Your task to perform on an android device: Go to privacy settings Image 0: 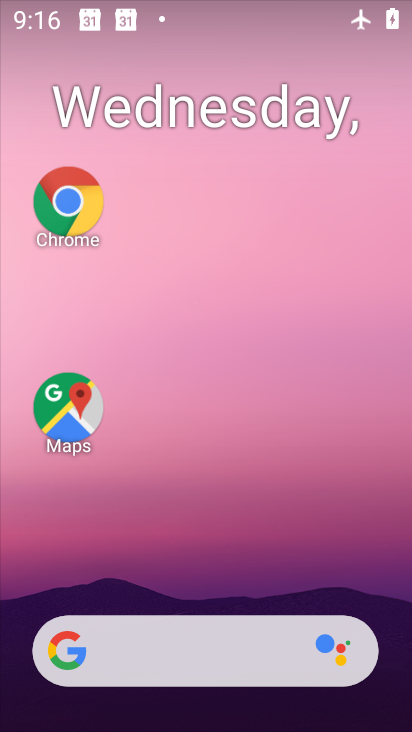
Step 0: drag from (206, 596) to (179, 262)
Your task to perform on an android device: Go to privacy settings Image 1: 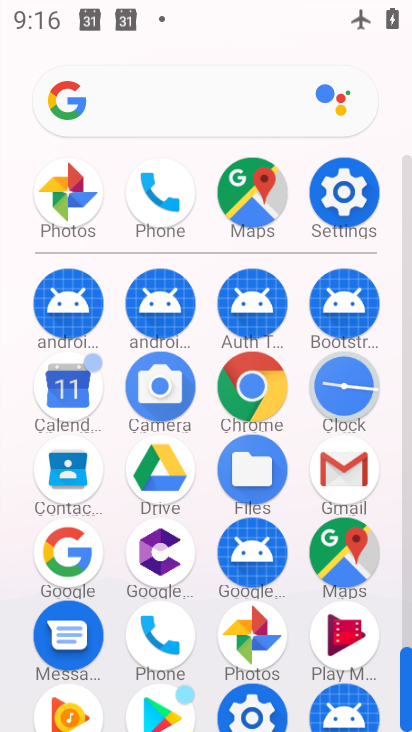
Step 1: click (353, 199)
Your task to perform on an android device: Go to privacy settings Image 2: 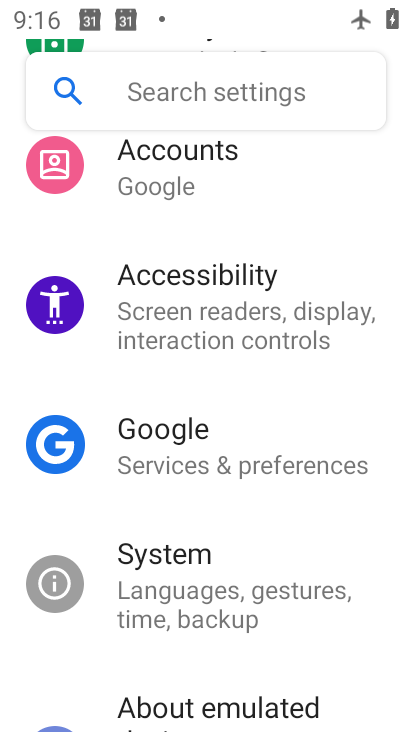
Step 2: drag from (186, 491) to (169, 721)
Your task to perform on an android device: Go to privacy settings Image 3: 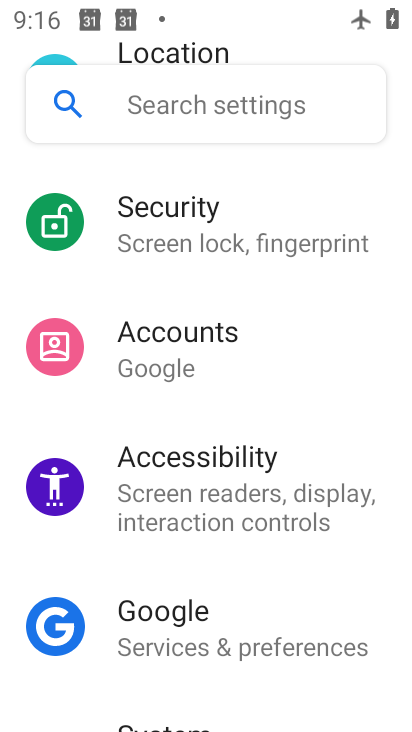
Step 3: drag from (133, 322) to (180, 717)
Your task to perform on an android device: Go to privacy settings Image 4: 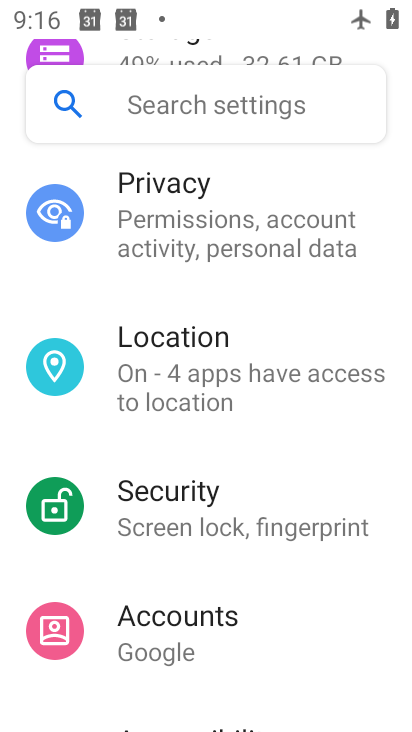
Step 4: click (135, 211)
Your task to perform on an android device: Go to privacy settings Image 5: 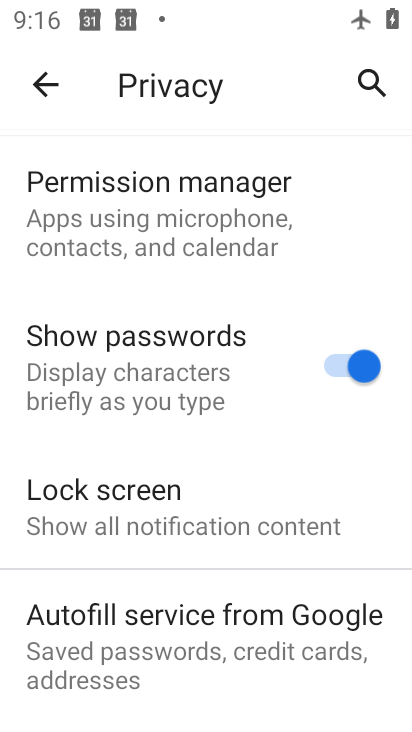
Step 5: task complete